Your task to perform on an android device: change keyboard looks Image 0: 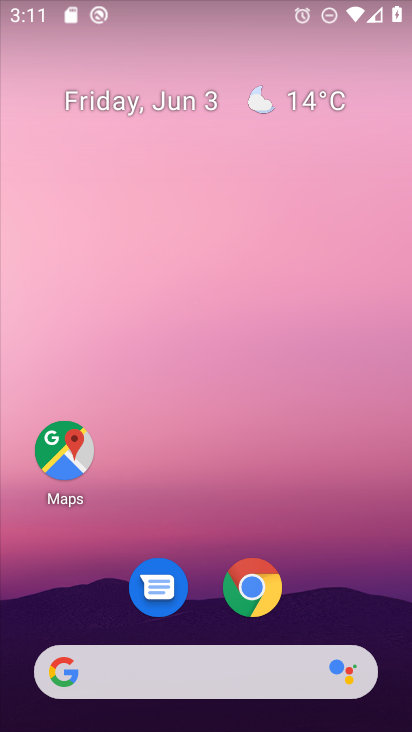
Step 0: drag from (205, 721) to (218, 151)
Your task to perform on an android device: change keyboard looks Image 1: 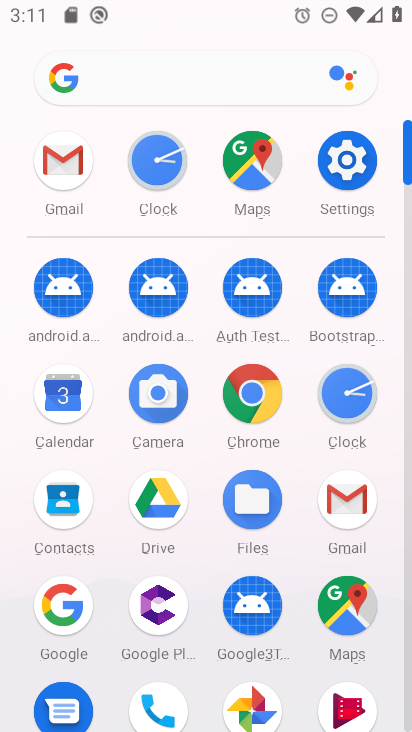
Step 1: click (339, 165)
Your task to perform on an android device: change keyboard looks Image 2: 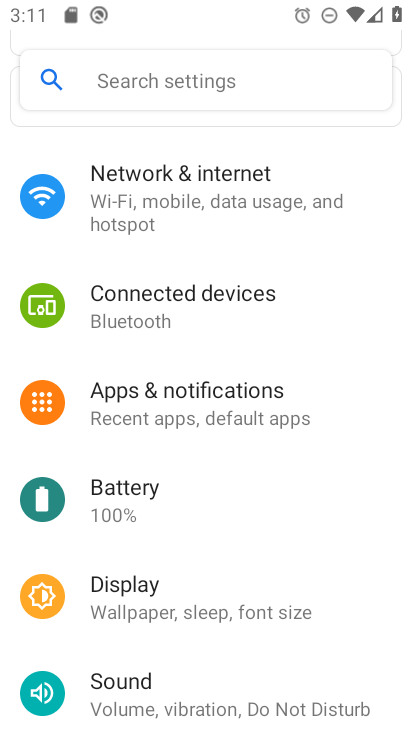
Step 2: drag from (208, 670) to (229, 83)
Your task to perform on an android device: change keyboard looks Image 3: 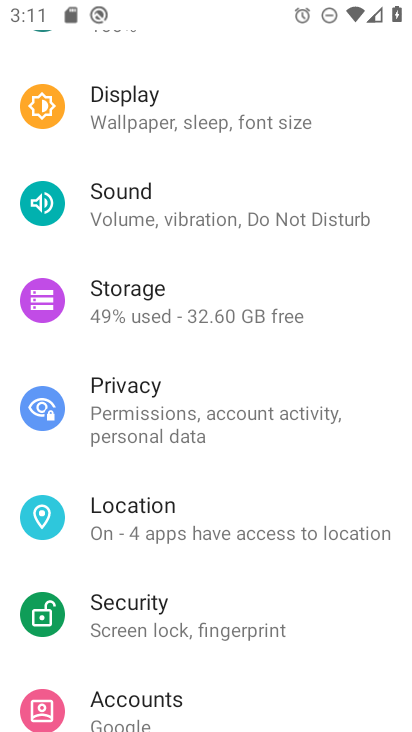
Step 3: drag from (214, 654) to (252, 325)
Your task to perform on an android device: change keyboard looks Image 4: 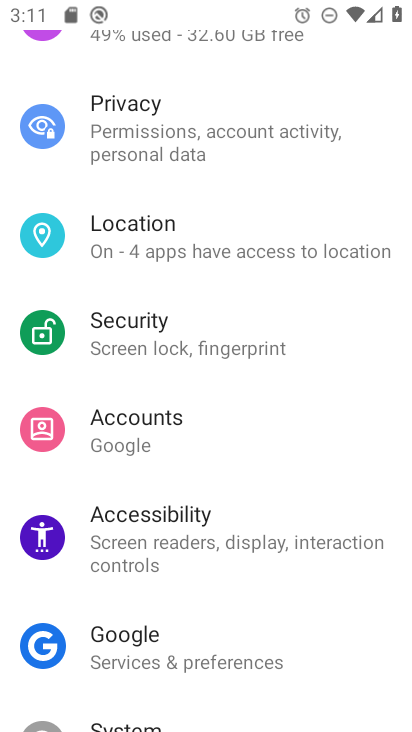
Step 4: drag from (214, 708) to (265, 311)
Your task to perform on an android device: change keyboard looks Image 5: 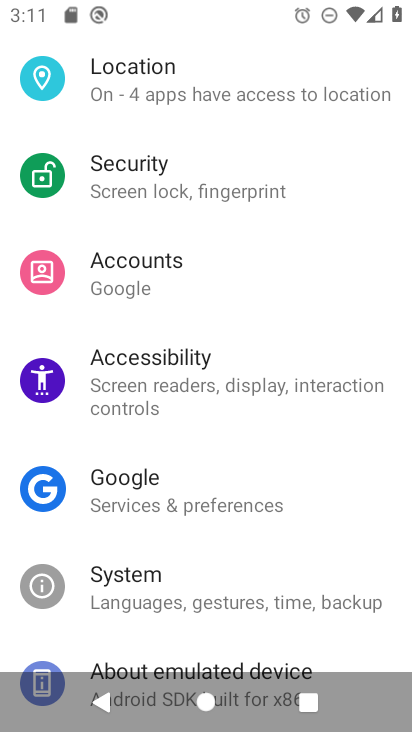
Step 5: drag from (203, 637) to (249, 240)
Your task to perform on an android device: change keyboard looks Image 6: 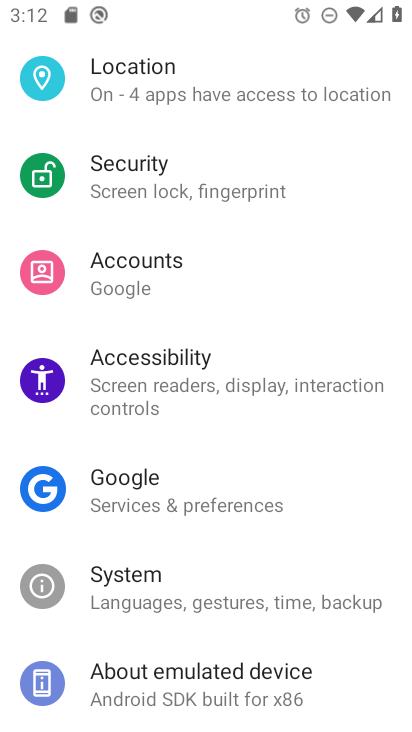
Step 6: click (143, 594)
Your task to perform on an android device: change keyboard looks Image 7: 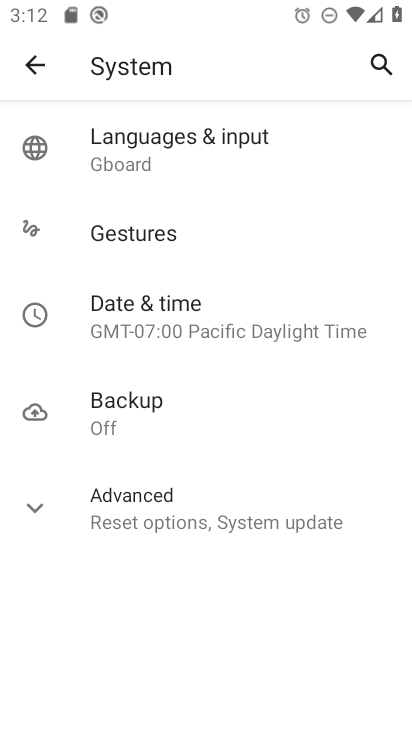
Step 7: click (126, 143)
Your task to perform on an android device: change keyboard looks Image 8: 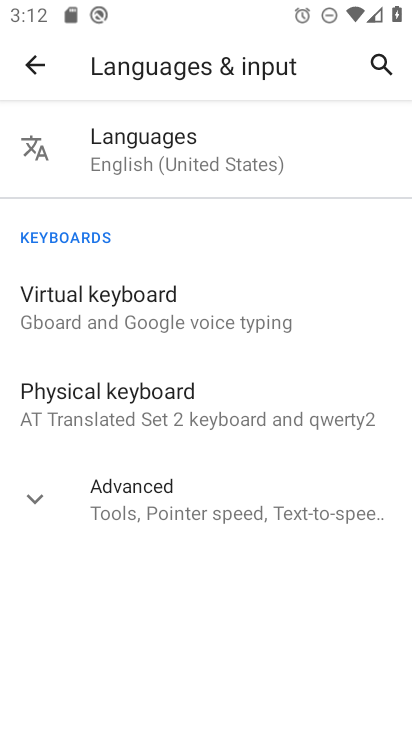
Step 8: click (134, 306)
Your task to perform on an android device: change keyboard looks Image 9: 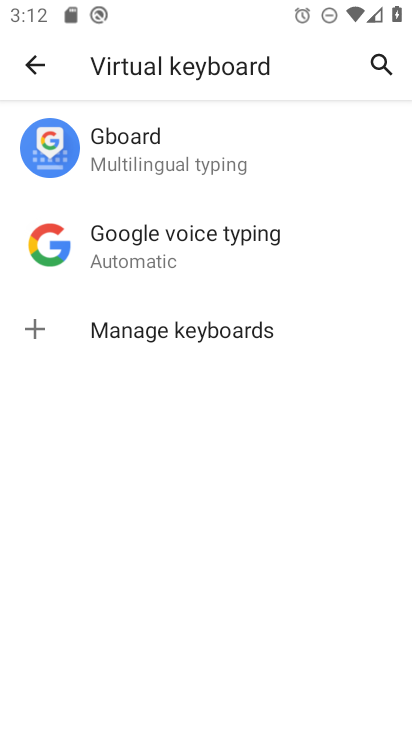
Step 9: click (120, 150)
Your task to perform on an android device: change keyboard looks Image 10: 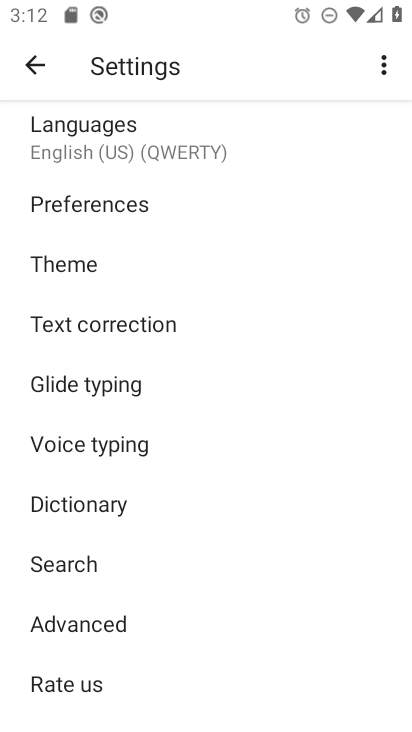
Step 10: click (60, 265)
Your task to perform on an android device: change keyboard looks Image 11: 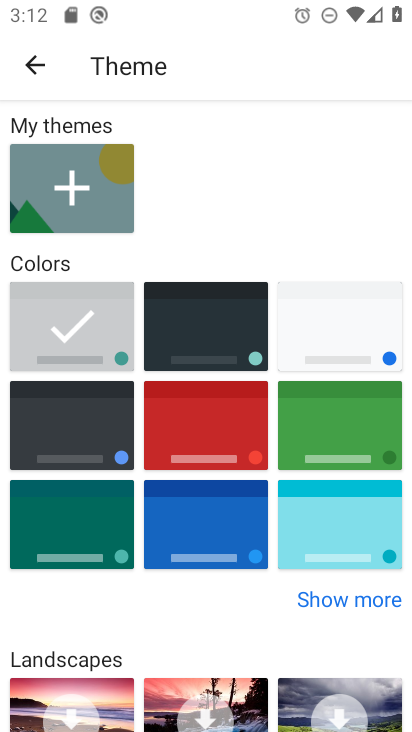
Step 11: click (215, 338)
Your task to perform on an android device: change keyboard looks Image 12: 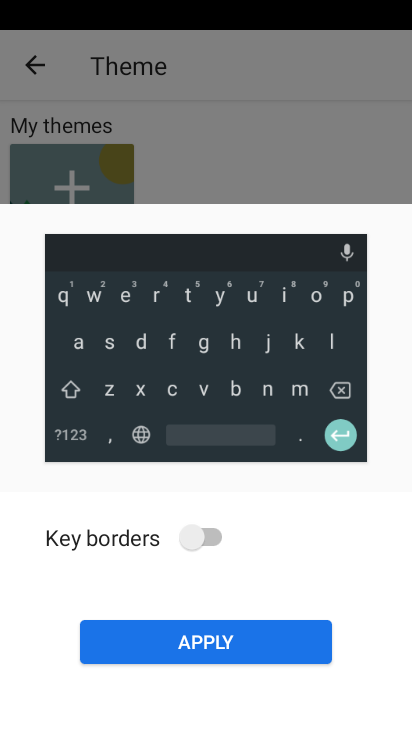
Step 12: click (212, 533)
Your task to perform on an android device: change keyboard looks Image 13: 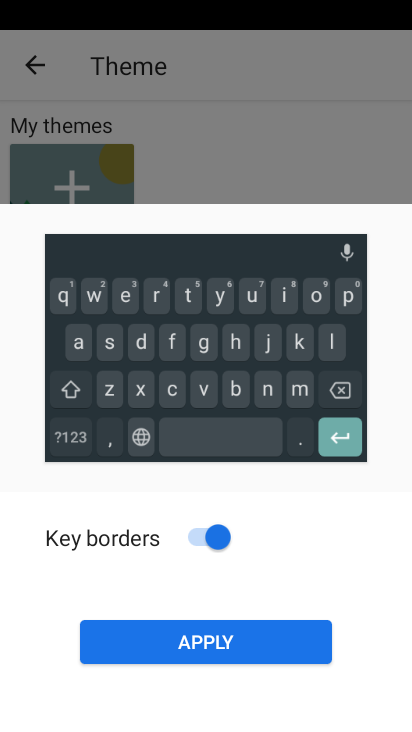
Step 13: click (209, 649)
Your task to perform on an android device: change keyboard looks Image 14: 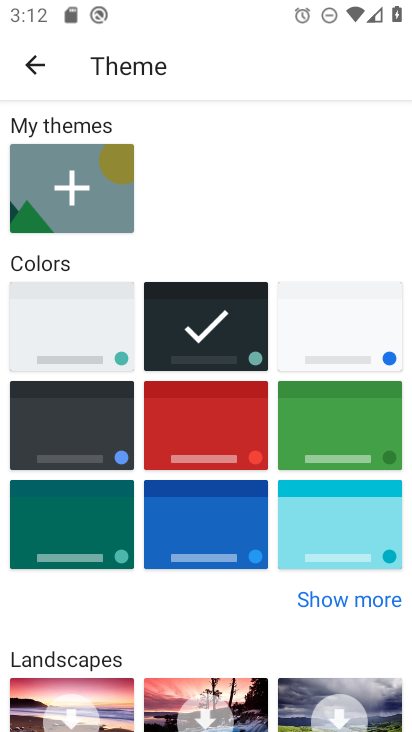
Step 14: task complete